Your task to perform on an android device: Show me popular videos on Youtube Image 0: 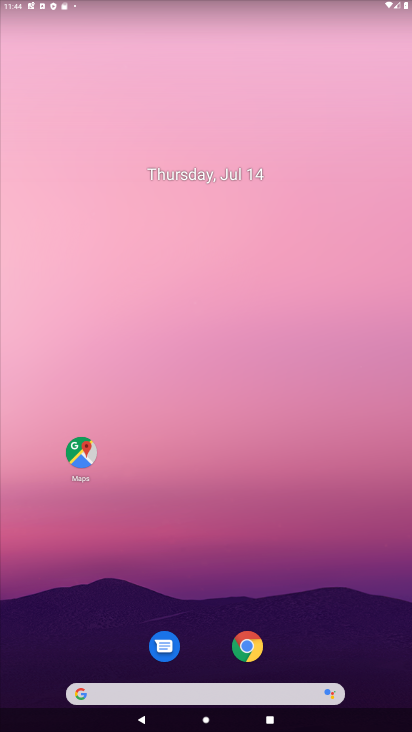
Step 0: drag from (213, 620) to (223, 194)
Your task to perform on an android device: Show me popular videos on Youtube Image 1: 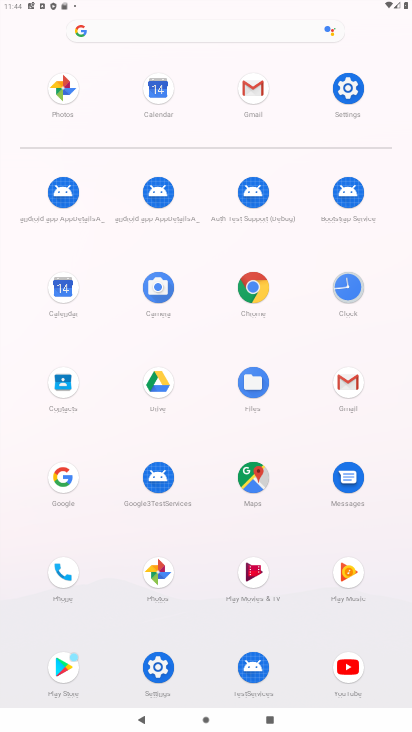
Step 1: click (341, 683)
Your task to perform on an android device: Show me popular videos on Youtube Image 2: 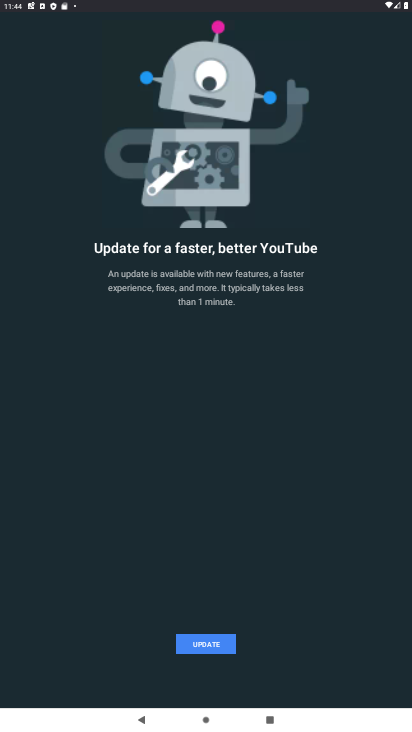
Step 2: click (224, 649)
Your task to perform on an android device: Show me popular videos on Youtube Image 3: 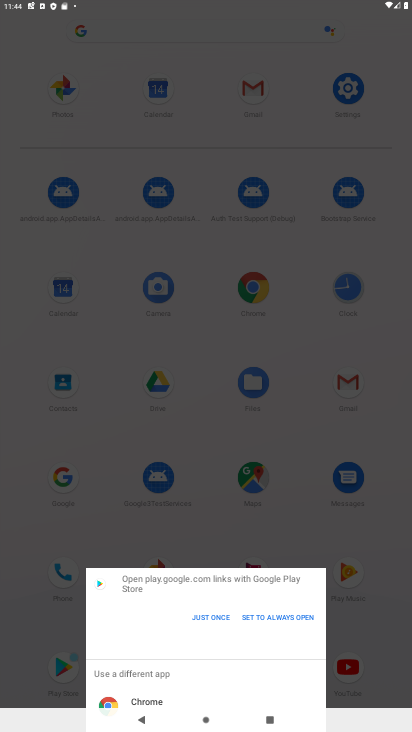
Step 3: click (209, 618)
Your task to perform on an android device: Show me popular videos on Youtube Image 4: 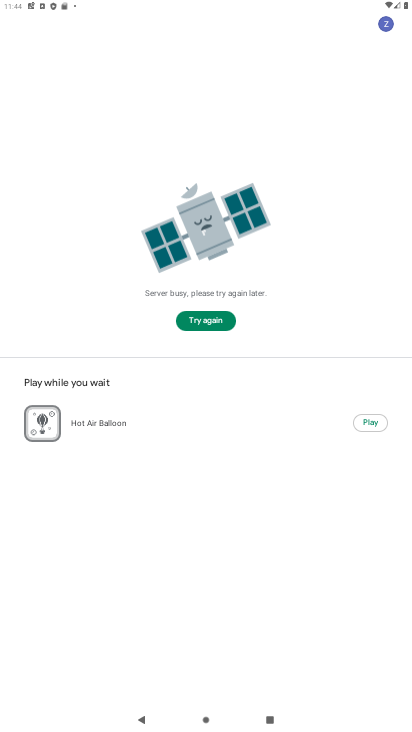
Step 4: task complete